Your task to perform on an android device: turn on javascript in the chrome app Image 0: 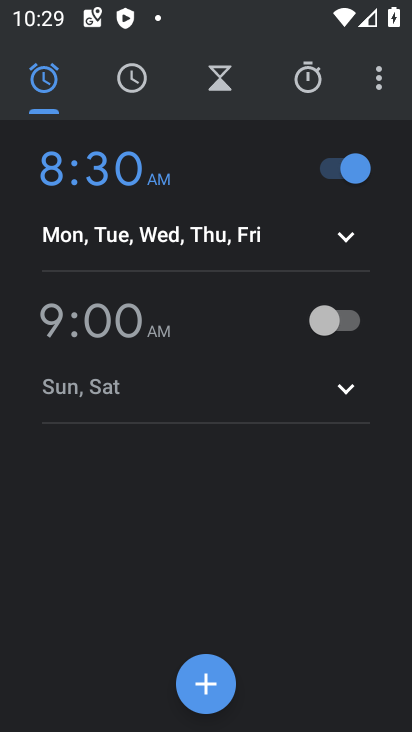
Step 0: press back button
Your task to perform on an android device: turn on javascript in the chrome app Image 1: 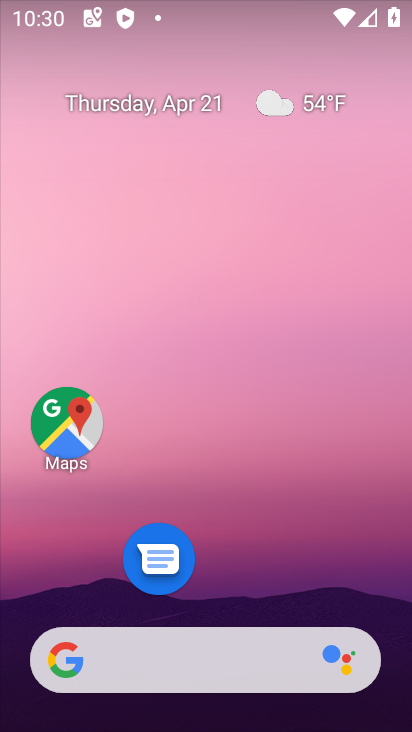
Step 1: drag from (255, 556) to (286, 147)
Your task to perform on an android device: turn on javascript in the chrome app Image 2: 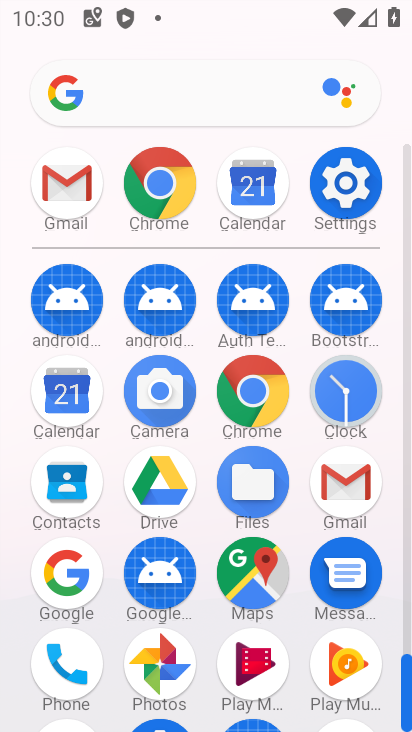
Step 2: click (166, 167)
Your task to perform on an android device: turn on javascript in the chrome app Image 3: 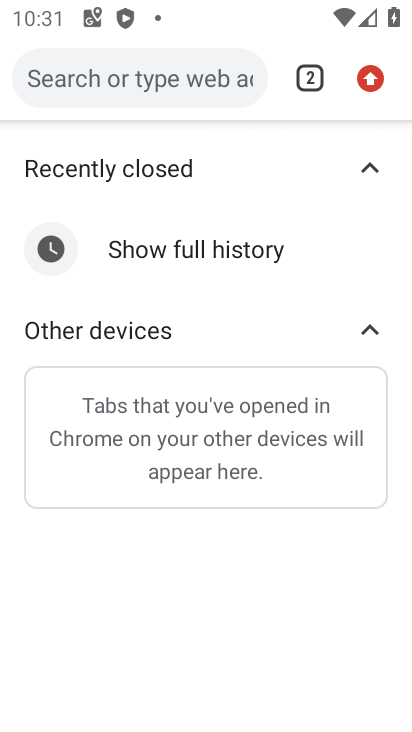
Step 3: drag from (373, 81) to (119, 607)
Your task to perform on an android device: turn on javascript in the chrome app Image 4: 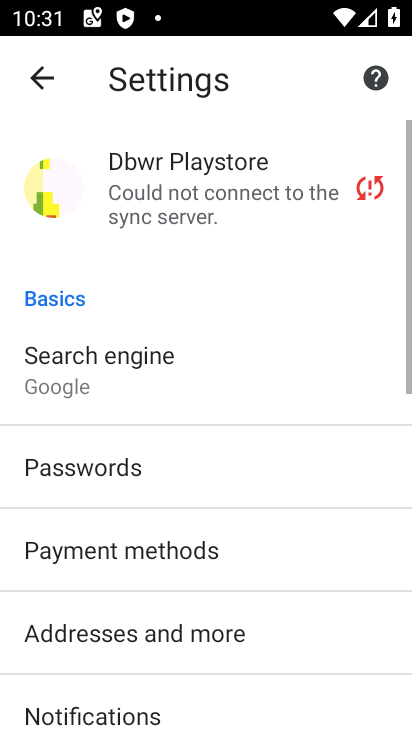
Step 4: drag from (230, 233) to (245, 107)
Your task to perform on an android device: turn on javascript in the chrome app Image 5: 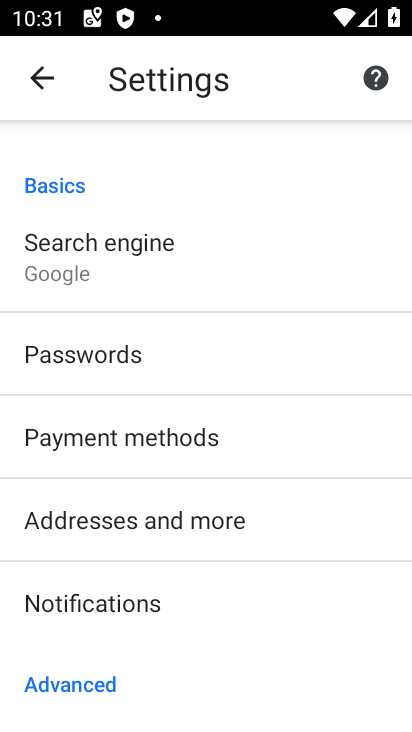
Step 5: drag from (137, 641) to (236, 142)
Your task to perform on an android device: turn on javascript in the chrome app Image 6: 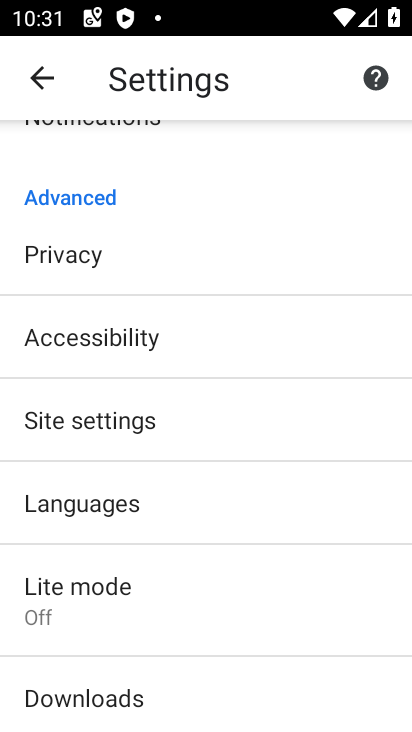
Step 6: click (84, 425)
Your task to perform on an android device: turn on javascript in the chrome app Image 7: 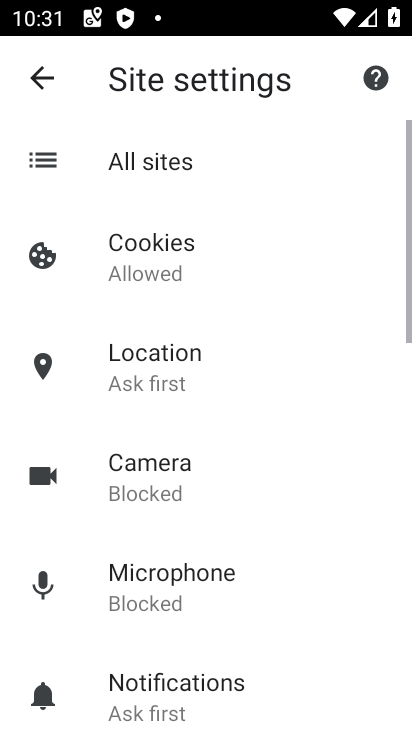
Step 7: drag from (170, 673) to (238, 204)
Your task to perform on an android device: turn on javascript in the chrome app Image 8: 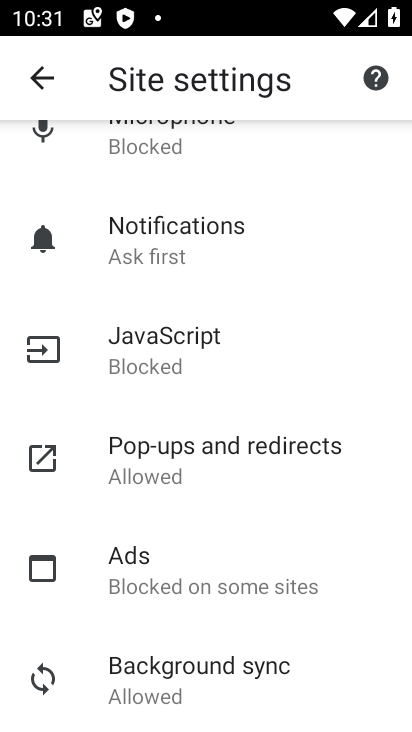
Step 8: click (176, 348)
Your task to perform on an android device: turn on javascript in the chrome app Image 9: 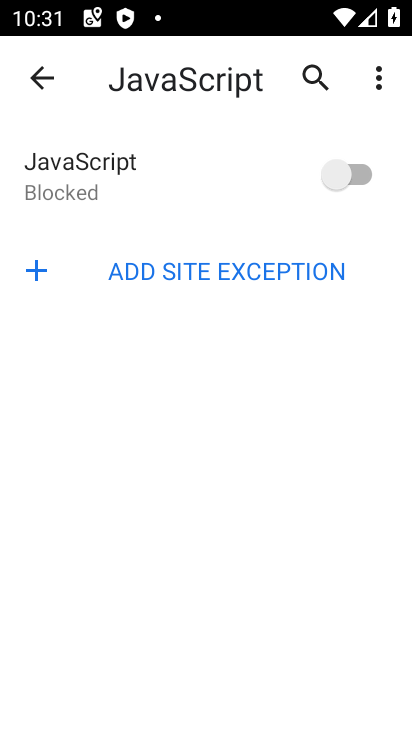
Step 9: click (337, 173)
Your task to perform on an android device: turn on javascript in the chrome app Image 10: 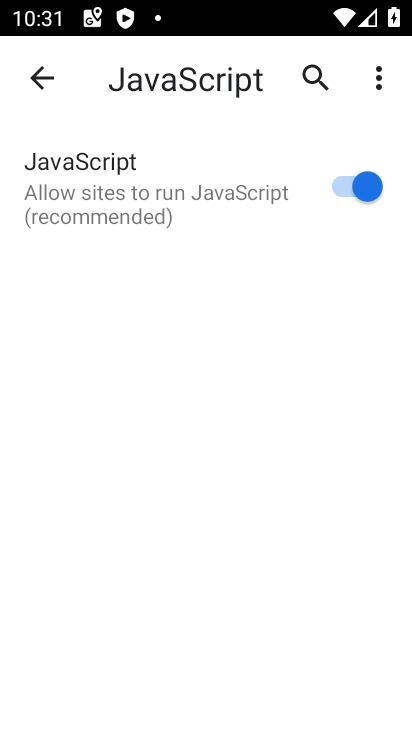
Step 10: task complete